Your task to perform on an android device: turn notification dots on Image 0: 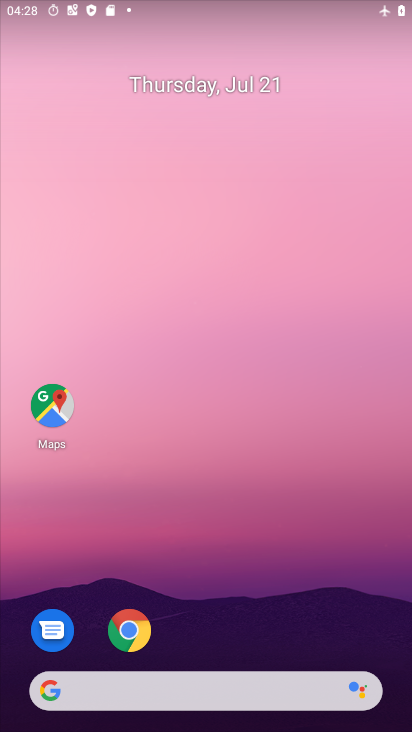
Step 0: drag from (207, 636) to (217, 91)
Your task to perform on an android device: turn notification dots on Image 1: 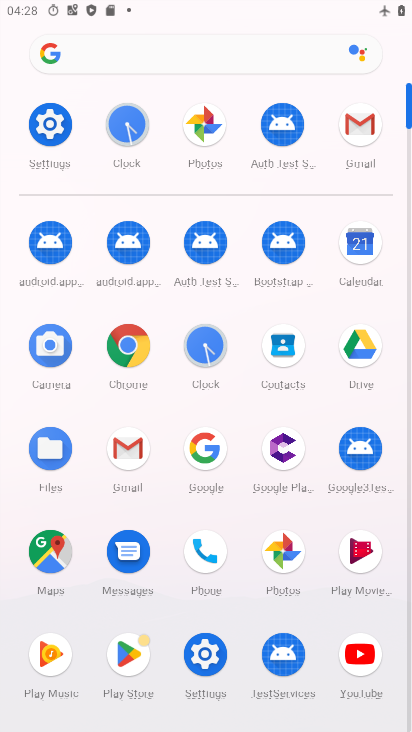
Step 1: click (54, 137)
Your task to perform on an android device: turn notification dots on Image 2: 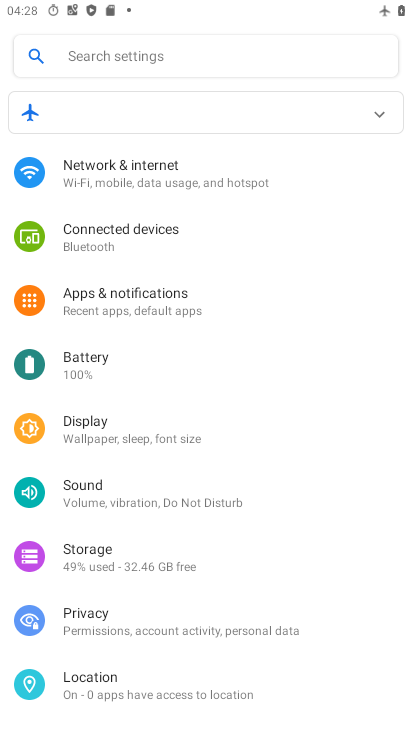
Step 2: click (165, 321)
Your task to perform on an android device: turn notification dots on Image 3: 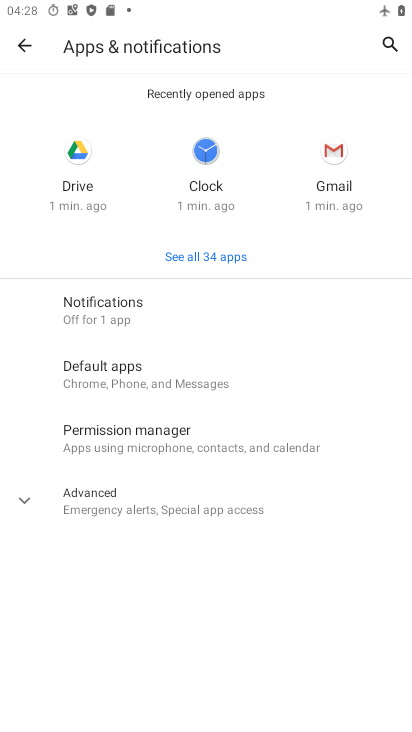
Step 3: click (120, 294)
Your task to perform on an android device: turn notification dots on Image 4: 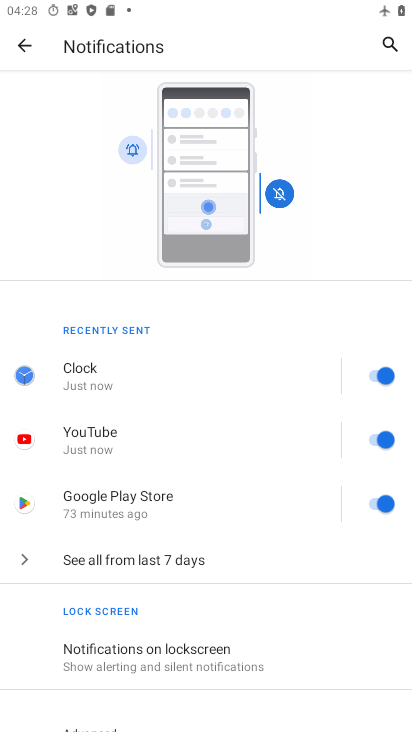
Step 4: drag from (180, 660) to (207, 163)
Your task to perform on an android device: turn notification dots on Image 5: 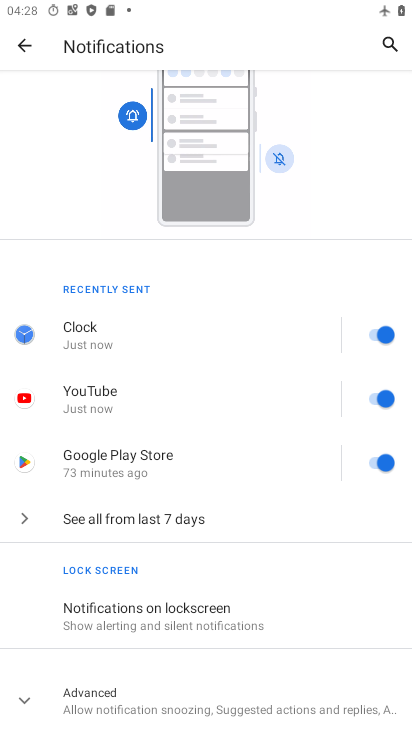
Step 5: click (253, 623)
Your task to perform on an android device: turn notification dots on Image 6: 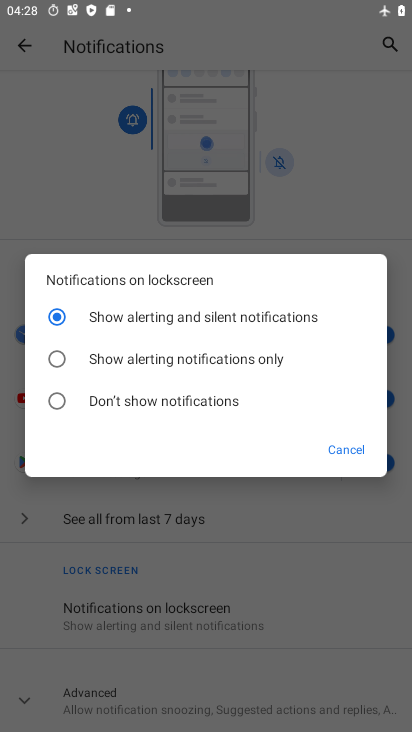
Step 6: click (183, 638)
Your task to perform on an android device: turn notification dots on Image 7: 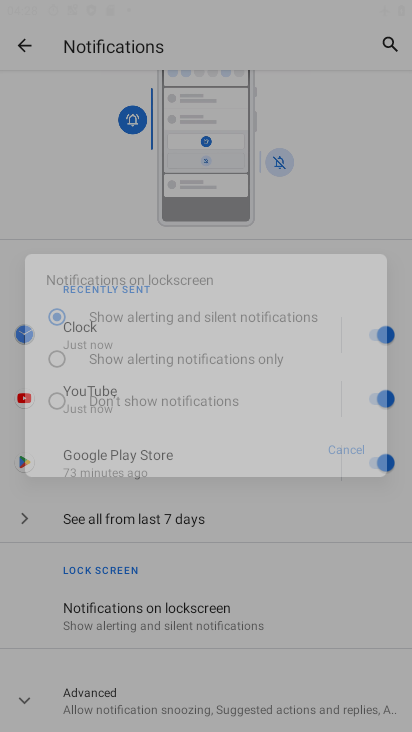
Step 7: drag from (183, 638) to (210, 184)
Your task to perform on an android device: turn notification dots on Image 8: 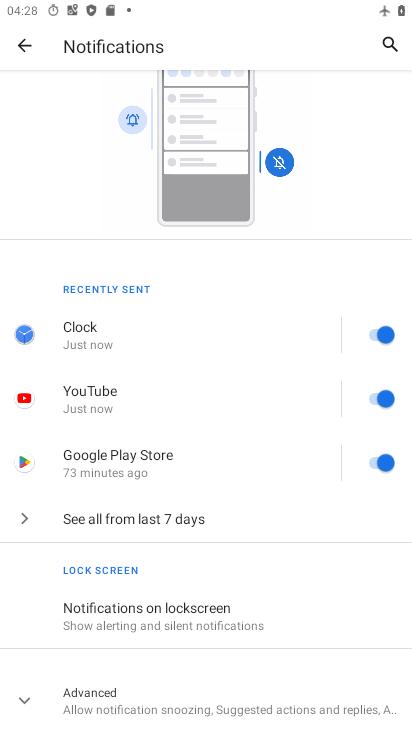
Step 8: click (178, 676)
Your task to perform on an android device: turn notification dots on Image 9: 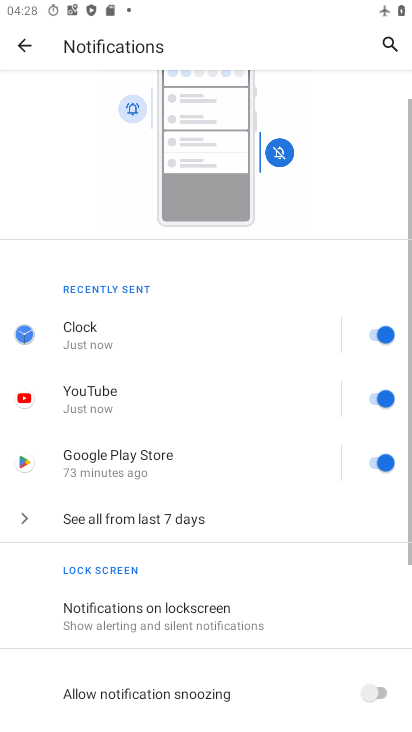
Step 9: task complete